Your task to perform on an android device: toggle pop-ups in chrome Image 0: 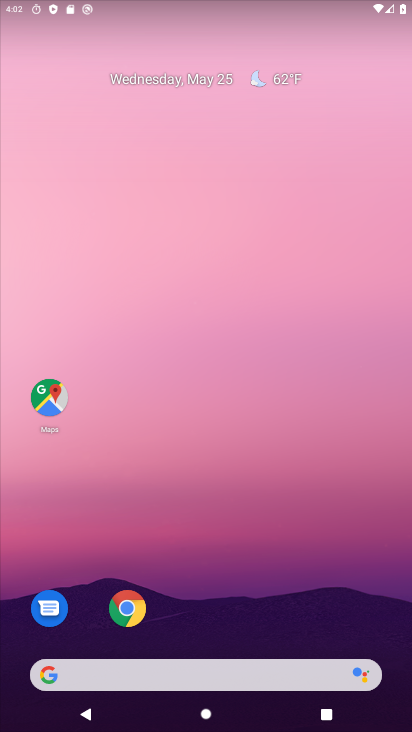
Step 0: click (125, 607)
Your task to perform on an android device: toggle pop-ups in chrome Image 1: 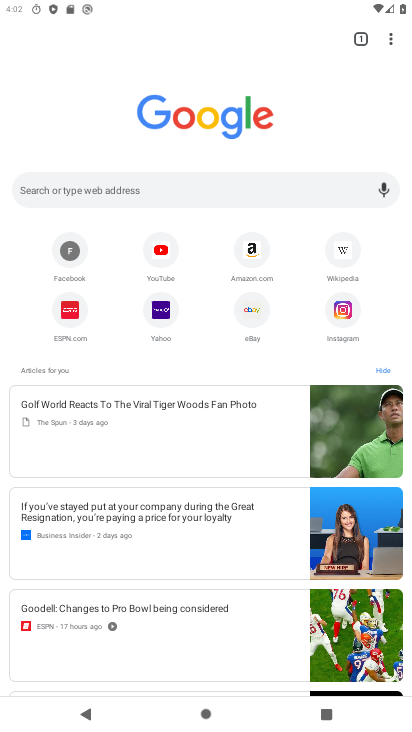
Step 1: click (390, 38)
Your task to perform on an android device: toggle pop-ups in chrome Image 2: 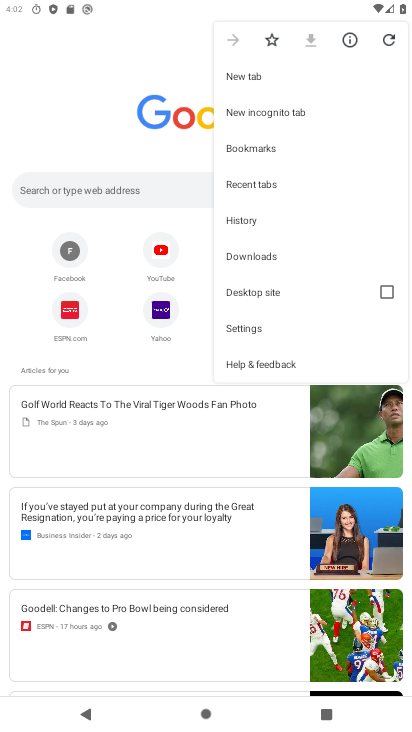
Step 2: click (237, 328)
Your task to perform on an android device: toggle pop-ups in chrome Image 3: 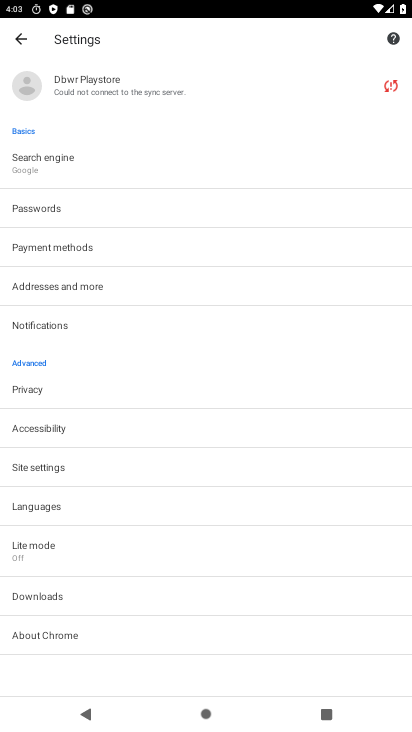
Step 3: click (59, 468)
Your task to perform on an android device: toggle pop-ups in chrome Image 4: 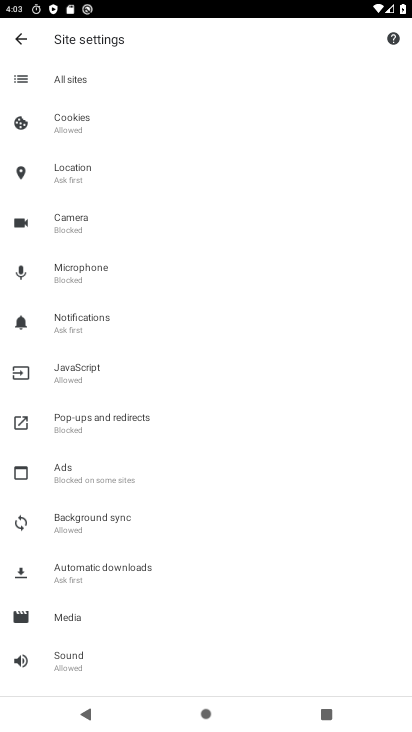
Step 4: click (86, 417)
Your task to perform on an android device: toggle pop-ups in chrome Image 5: 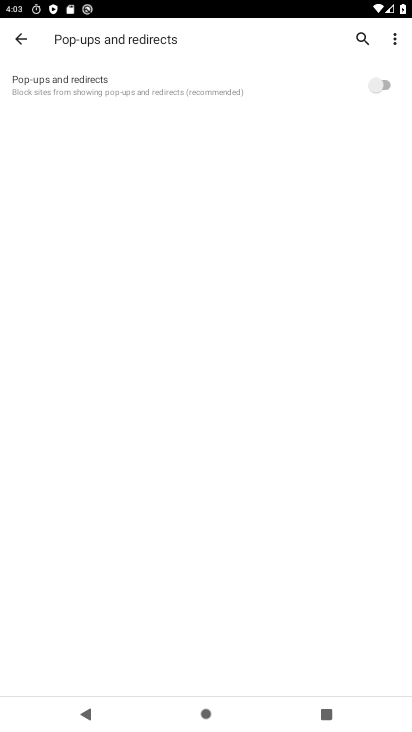
Step 5: click (374, 88)
Your task to perform on an android device: toggle pop-ups in chrome Image 6: 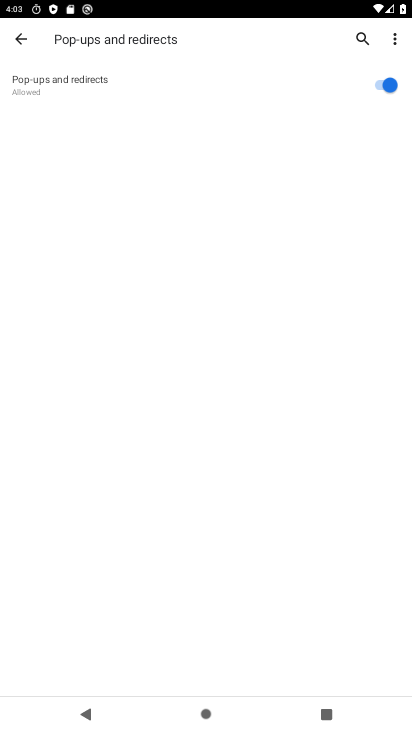
Step 6: task complete